Your task to perform on an android device: turn off airplane mode Image 0: 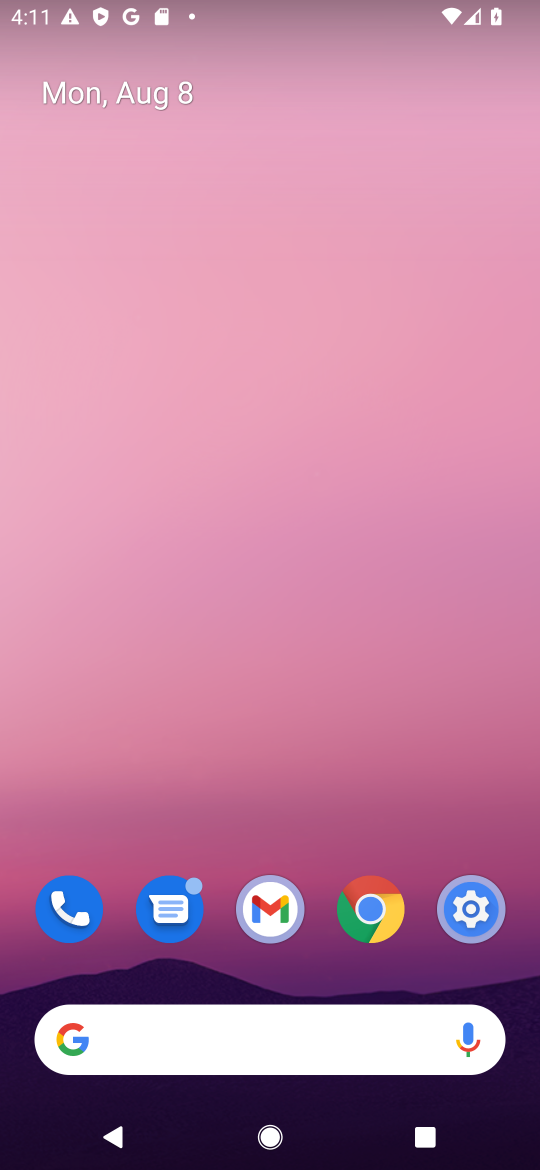
Step 0: press home button
Your task to perform on an android device: turn off airplane mode Image 1: 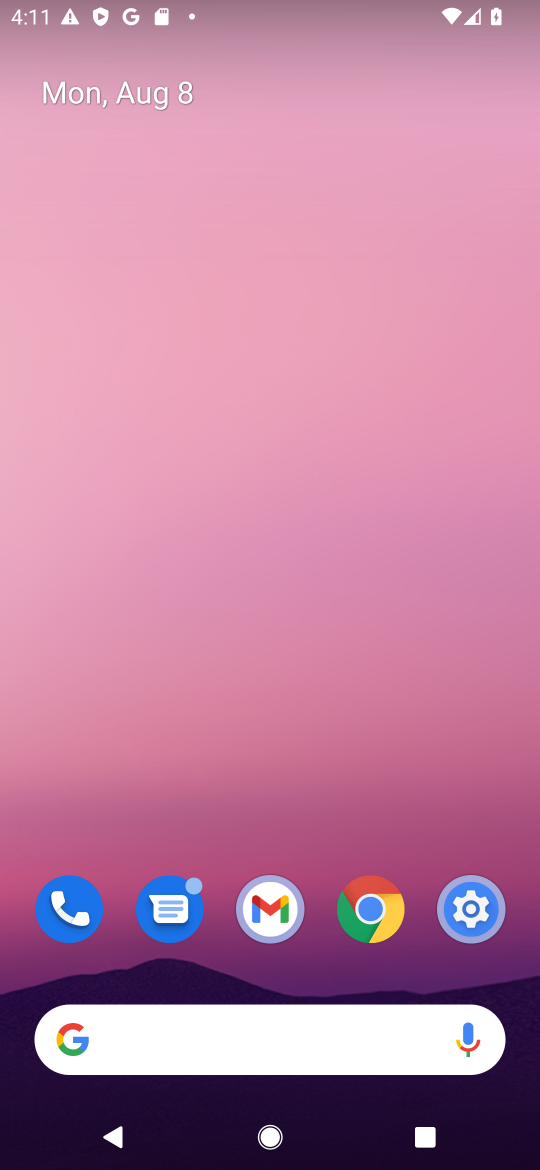
Step 1: click (468, 913)
Your task to perform on an android device: turn off airplane mode Image 2: 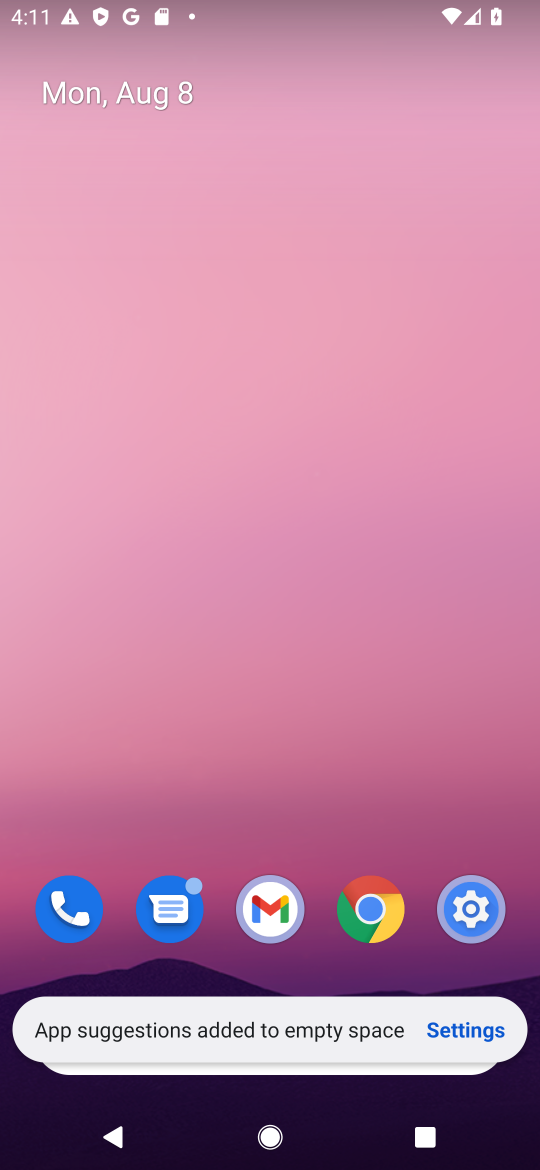
Step 2: click (468, 913)
Your task to perform on an android device: turn off airplane mode Image 3: 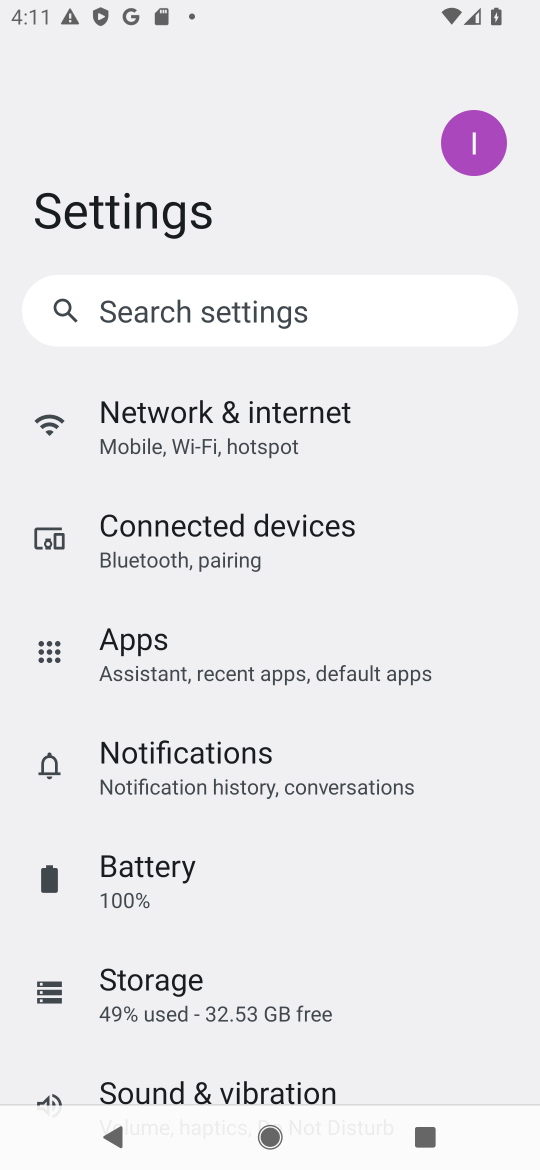
Step 3: click (273, 425)
Your task to perform on an android device: turn off airplane mode Image 4: 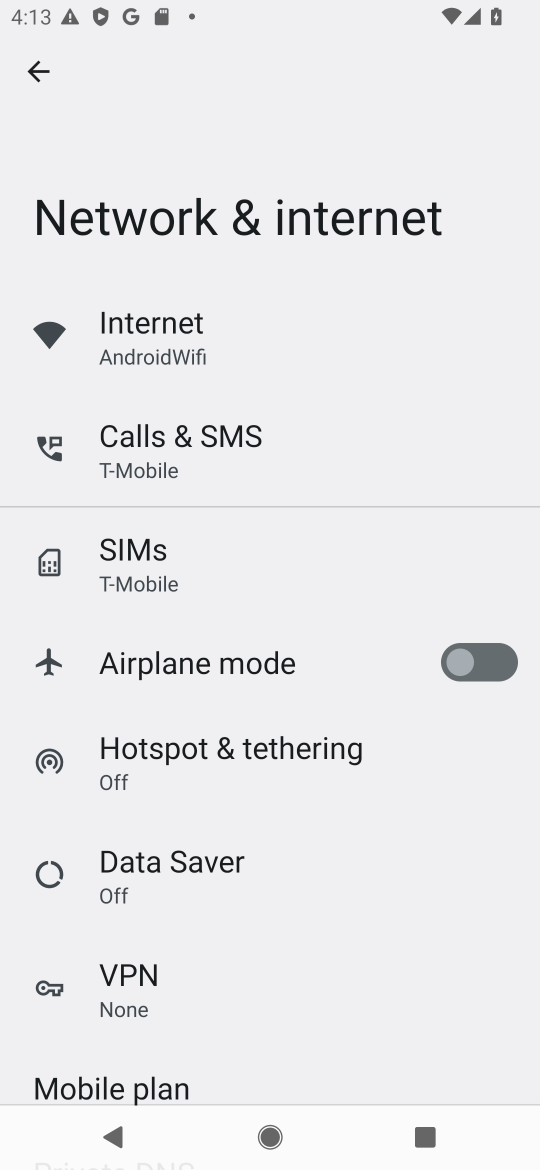
Step 4: task complete